Your task to perform on an android device: toggle data saver in the chrome app Image 0: 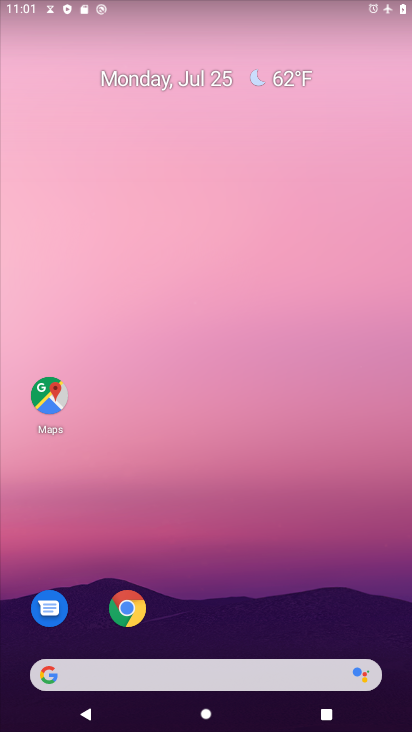
Step 0: click (126, 608)
Your task to perform on an android device: toggle data saver in the chrome app Image 1: 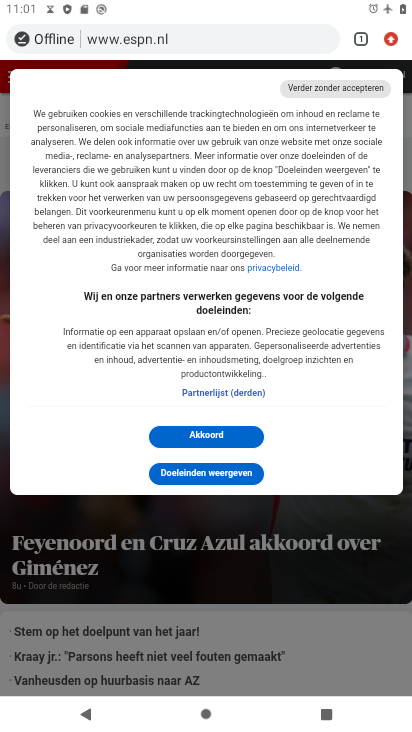
Step 1: click (389, 39)
Your task to perform on an android device: toggle data saver in the chrome app Image 2: 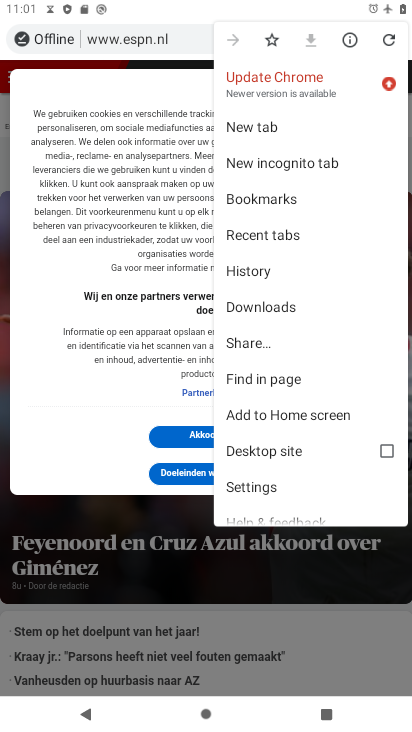
Step 2: click (252, 483)
Your task to perform on an android device: toggle data saver in the chrome app Image 3: 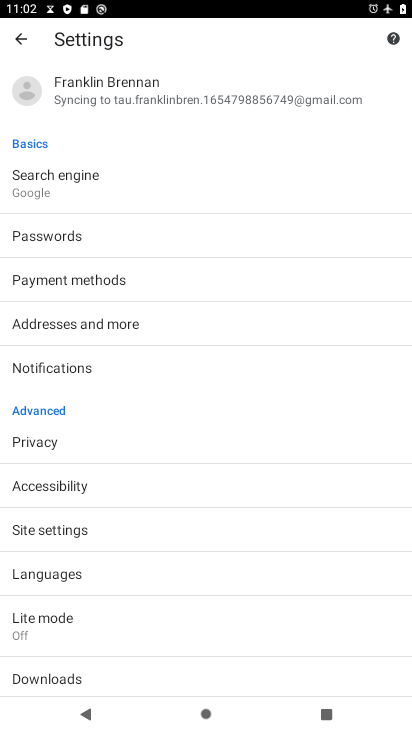
Step 3: click (36, 622)
Your task to perform on an android device: toggle data saver in the chrome app Image 4: 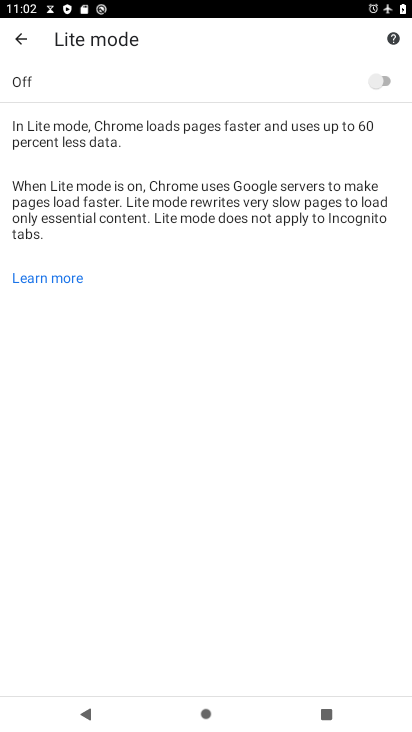
Step 4: click (379, 81)
Your task to perform on an android device: toggle data saver in the chrome app Image 5: 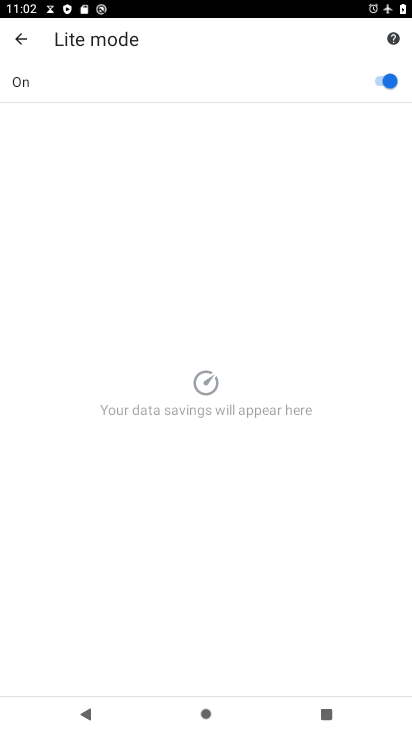
Step 5: task complete